Your task to perform on an android device: install app "Speedtest by Ookla" Image 0: 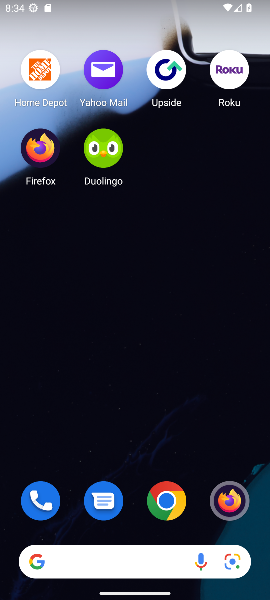
Step 0: drag from (137, 535) to (145, 209)
Your task to perform on an android device: install app "Speedtest by Ookla" Image 1: 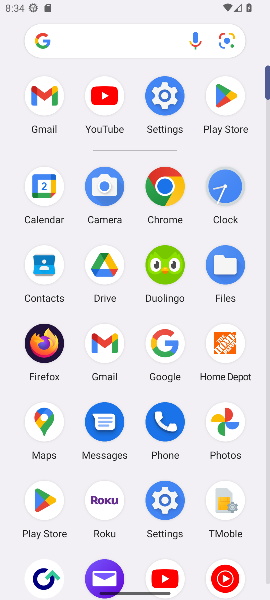
Step 1: click (38, 498)
Your task to perform on an android device: install app "Speedtest by Ookla" Image 2: 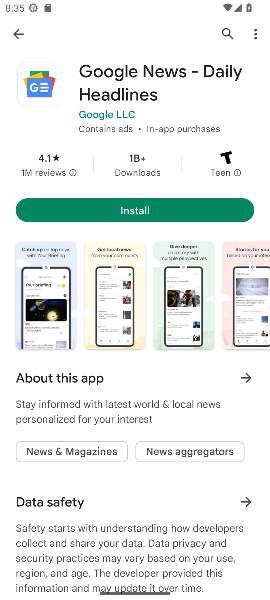
Step 2: drag from (152, 258) to (140, 361)
Your task to perform on an android device: install app "Speedtest by Ookla" Image 3: 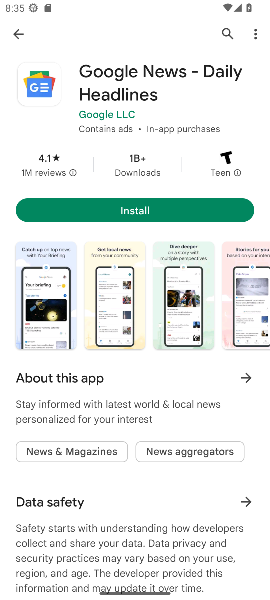
Step 3: drag from (122, 518) to (185, 231)
Your task to perform on an android device: install app "Speedtest by Ookla" Image 4: 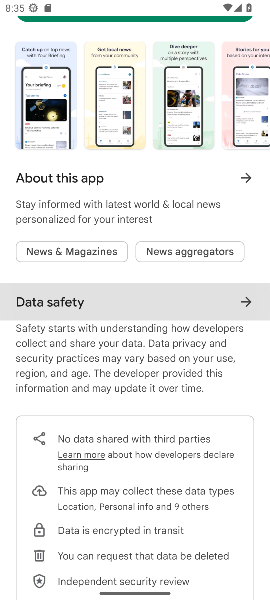
Step 4: drag from (159, 141) to (183, 572)
Your task to perform on an android device: install app "Speedtest by Ookla" Image 5: 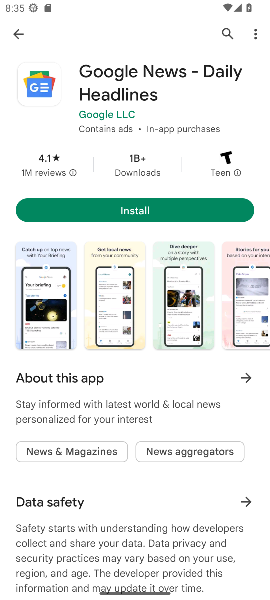
Step 5: click (224, 34)
Your task to perform on an android device: install app "Speedtest by Ookla" Image 6: 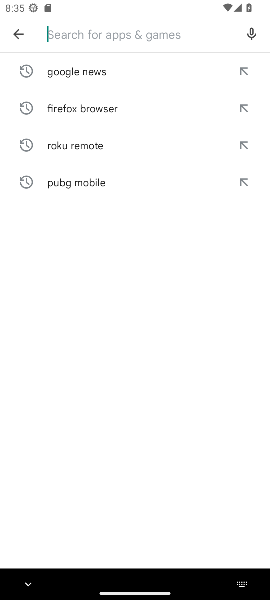
Step 6: type "Speedtest by Ookla"
Your task to perform on an android device: install app "Speedtest by Ookla" Image 7: 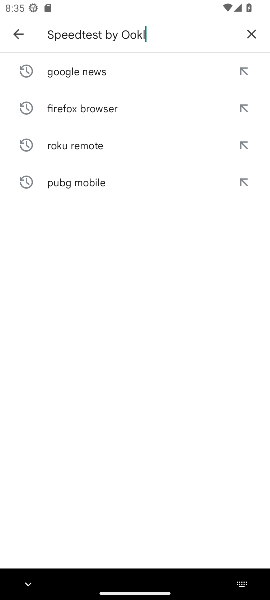
Step 7: type ""
Your task to perform on an android device: install app "Speedtest by Ookla" Image 8: 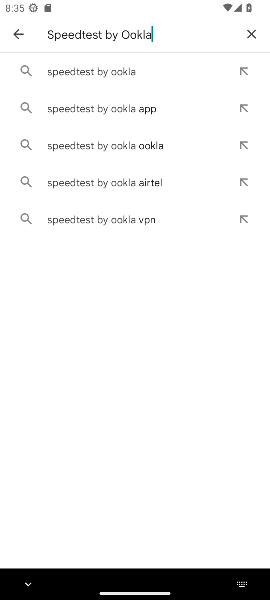
Step 8: click (94, 69)
Your task to perform on an android device: install app "Speedtest by Ookla" Image 9: 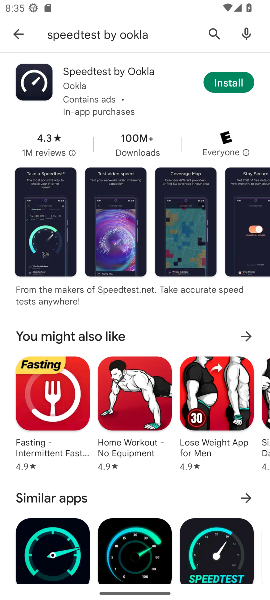
Step 9: click (83, 73)
Your task to perform on an android device: install app "Speedtest by Ookla" Image 10: 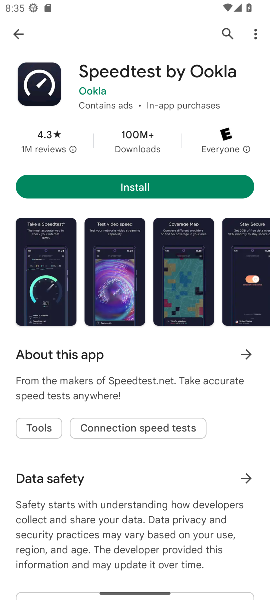
Step 10: click (141, 179)
Your task to perform on an android device: install app "Speedtest by Ookla" Image 11: 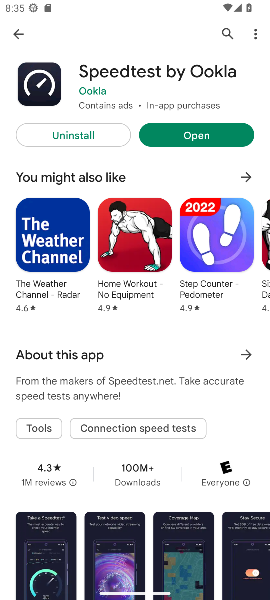
Step 11: task complete